Your task to perform on an android device: turn off location history Image 0: 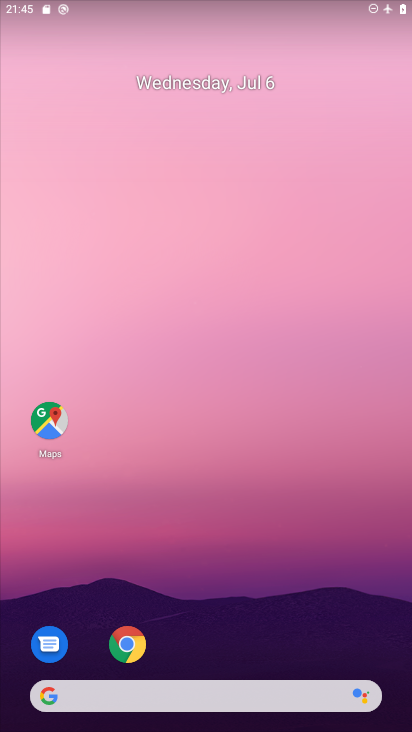
Step 0: drag from (245, 630) to (251, 174)
Your task to perform on an android device: turn off location history Image 1: 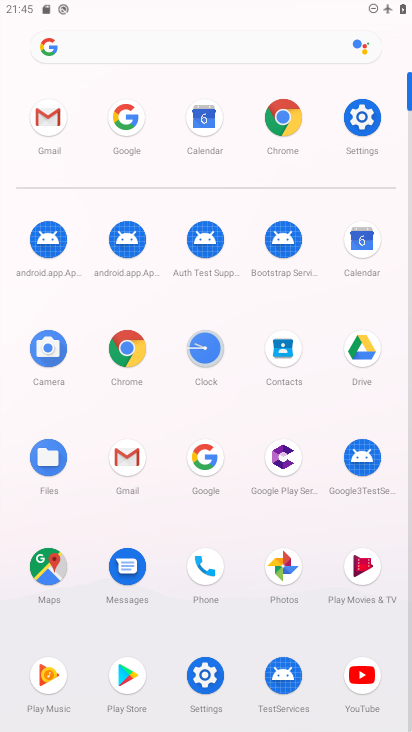
Step 1: click (197, 663)
Your task to perform on an android device: turn off location history Image 2: 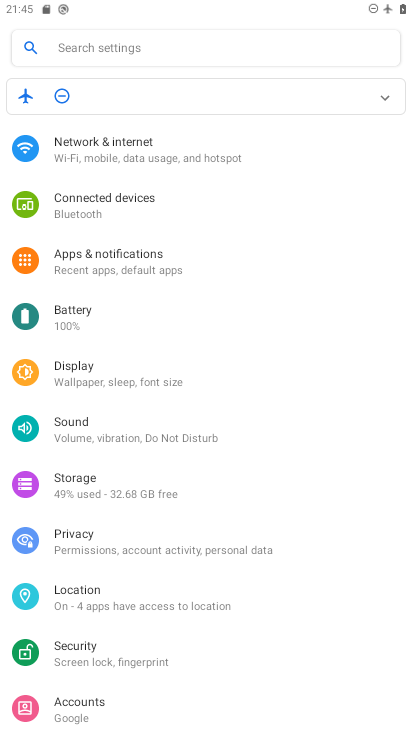
Step 2: click (121, 608)
Your task to perform on an android device: turn off location history Image 3: 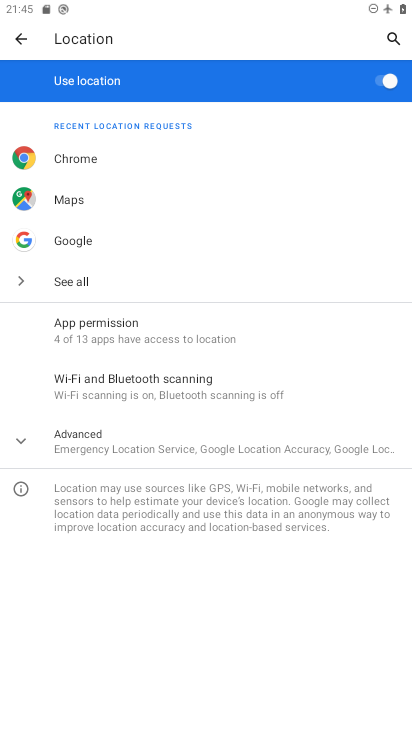
Step 3: click (117, 433)
Your task to perform on an android device: turn off location history Image 4: 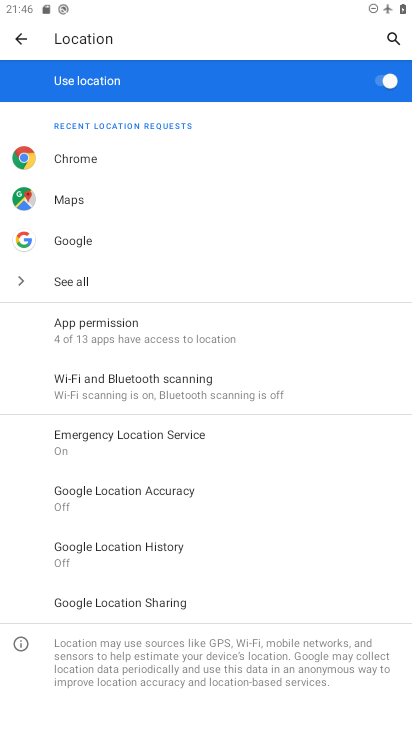
Step 4: click (167, 551)
Your task to perform on an android device: turn off location history Image 5: 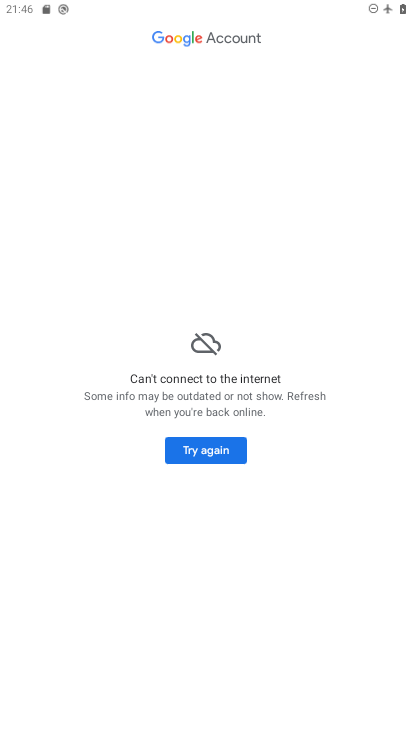
Step 5: task complete